Your task to perform on an android device: Open Chrome and go to settings Image 0: 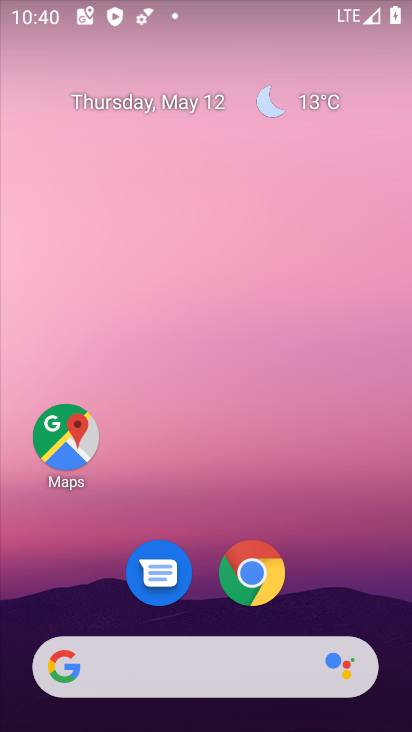
Step 0: click (247, 576)
Your task to perform on an android device: Open Chrome and go to settings Image 1: 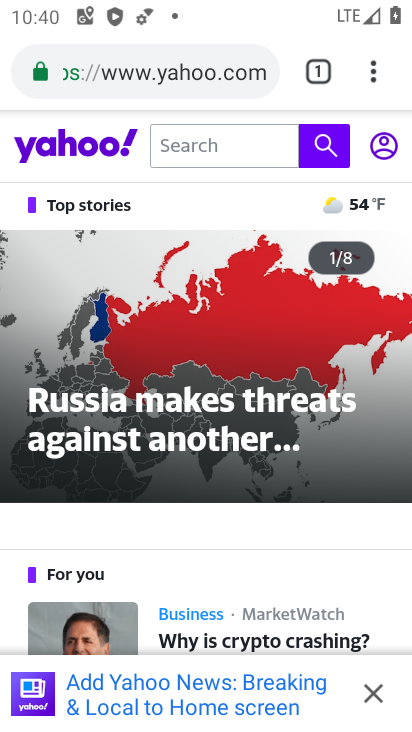
Step 1: click (373, 74)
Your task to perform on an android device: Open Chrome and go to settings Image 2: 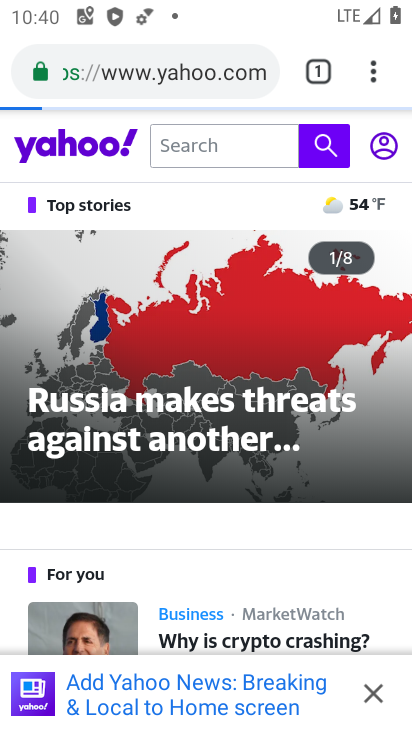
Step 2: task complete